Your task to perform on an android device: Open the calendar app, open the side menu, and click the "Day" option Image 0: 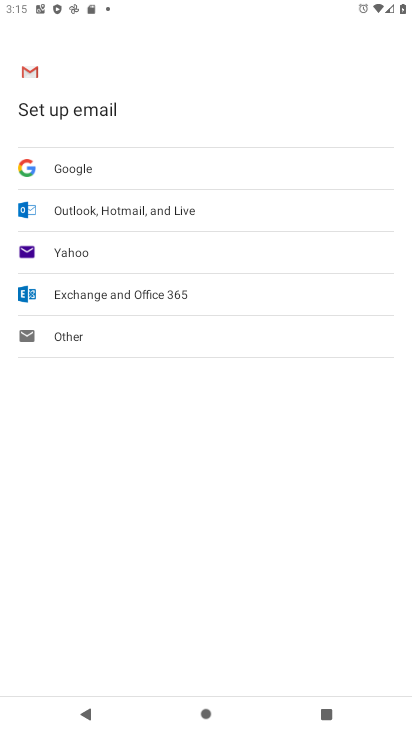
Step 0: press home button
Your task to perform on an android device: Open the calendar app, open the side menu, and click the "Day" option Image 1: 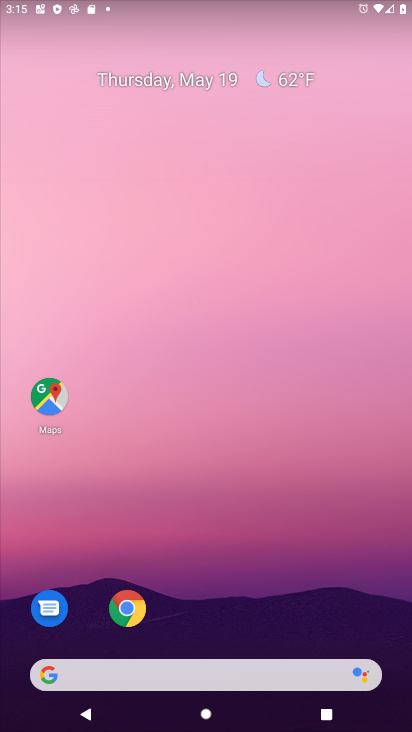
Step 1: drag from (251, 618) to (145, 15)
Your task to perform on an android device: Open the calendar app, open the side menu, and click the "Day" option Image 2: 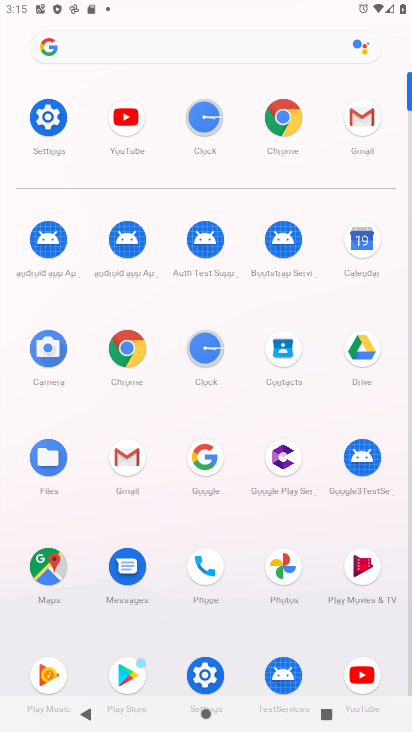
Step 2: click (368, 254)
Your task to perform on an android device: Open the calendar app, open the side menu, and click the "Day" option Image 3: 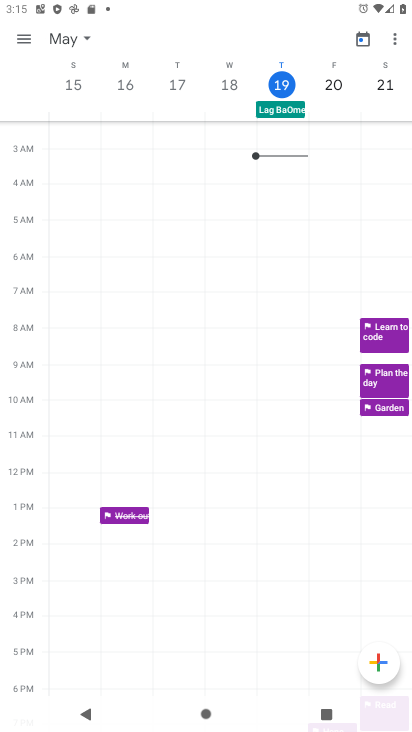
Step 3: click (11, 45)
Your task to perform on an android device: Open the calendar app, open the side menu, and click the "Day" option Image 4: 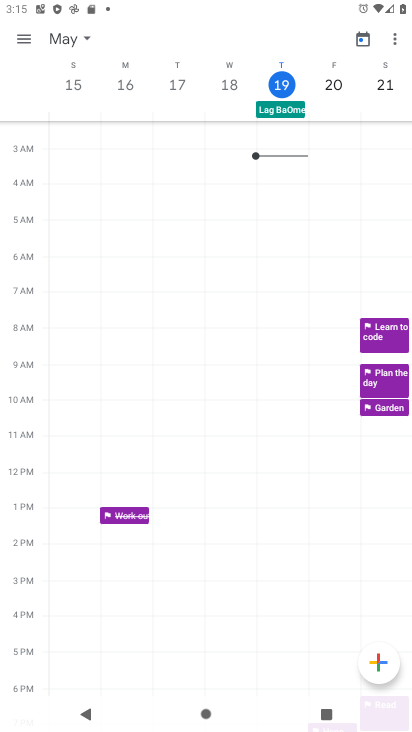
Step 4: click (35, 39)
Your task to perform on an android device: Open the calendar app, open the side menu, and click the "Day" option Image 5: 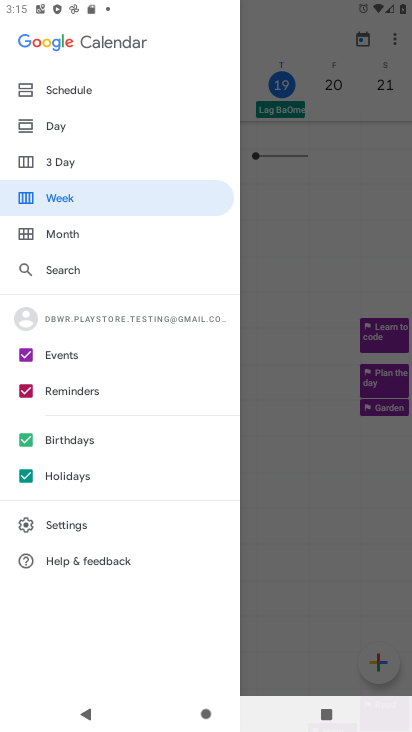
Step 5: click (53, 138)
Your task to perform on an android device: Open the calendar app, open the side menu, and click the "Day" option Image 6: 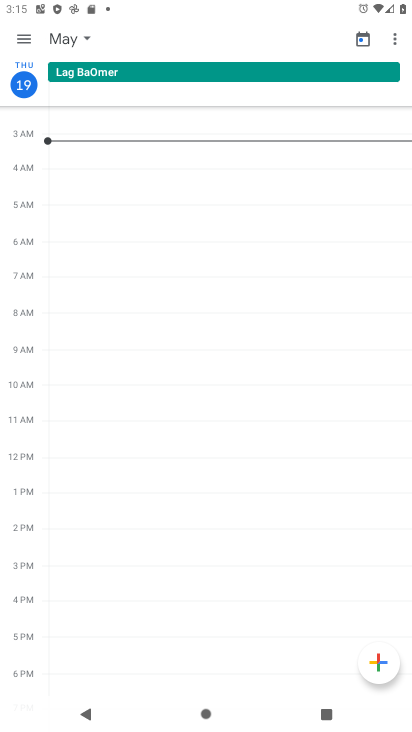
Step 6: task complete